Your task to perform on an android device: open a bookmark in the chrome app Image 0: 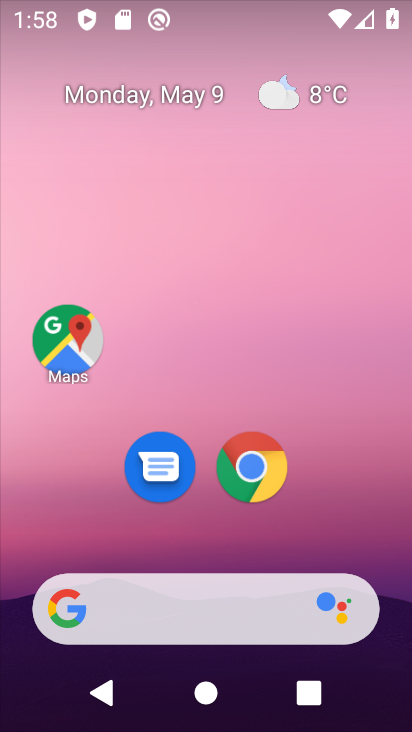
Step 0: click (254, 471)
Your task to perform on an android device: open a bookmark in the chrome app Image 1: 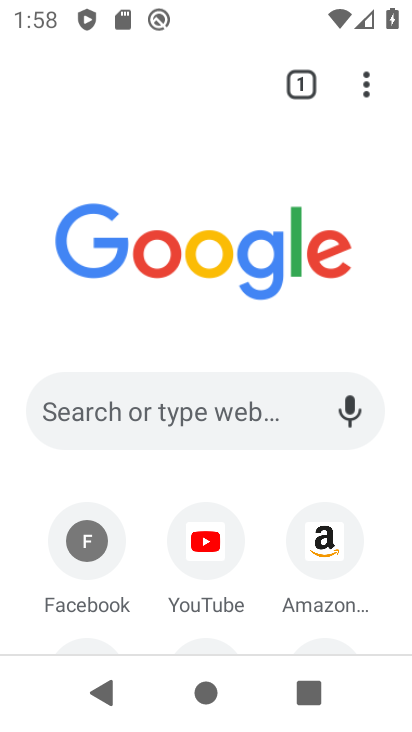
Step 1: task complete